Your task to perform on an android device: turn on bluetooth scan Image 0: 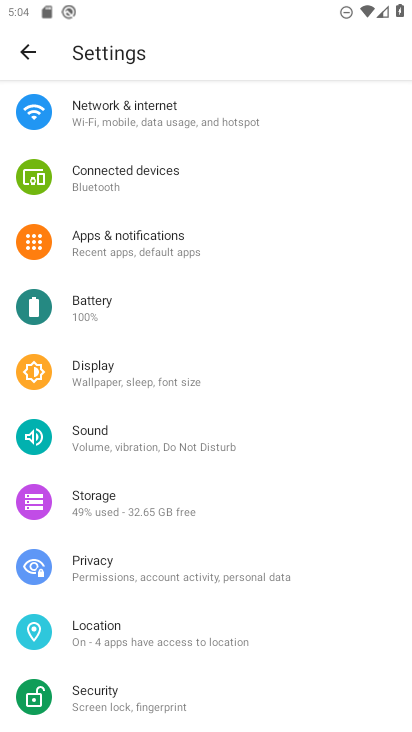
Step 0: click (92, 628)
Your task to perform on an android device: turn on bluetooth scan Image 1: 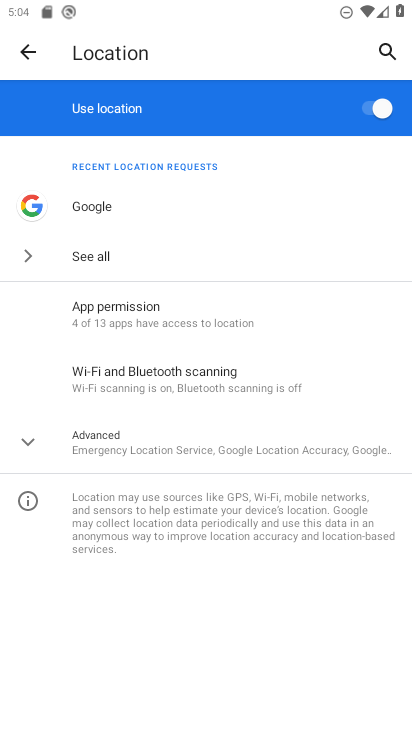
Step 1: click (173, 384)
Your task to perform on an android device: turn on bluetooth scan Image 2: 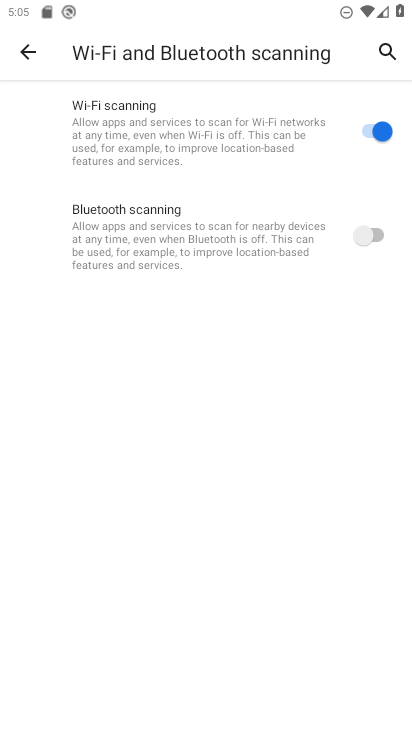
Step 2: click (375, 230)
Your task to perform on an android device: turn on bluetooth scan Image 3: 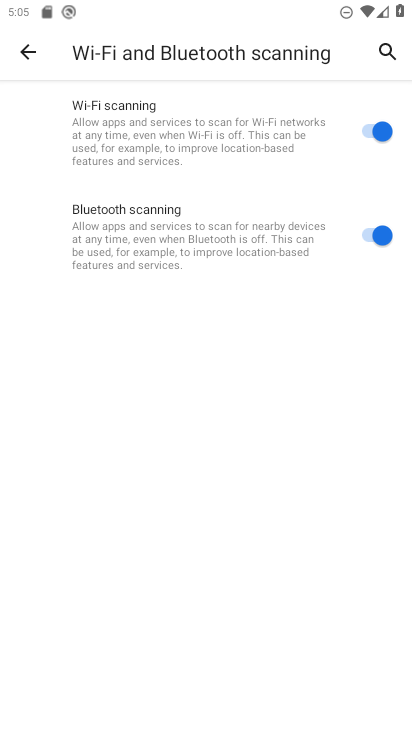
Step 3: task complete